Your task to perform on an android device: check storage Image 0: 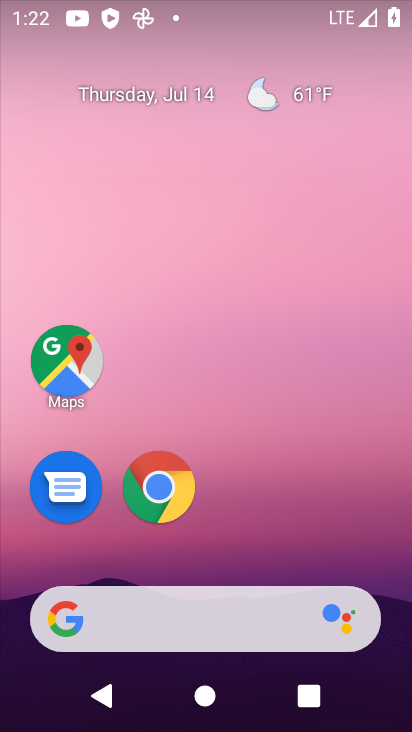
Step 0: drag from (359, 545) to (384, 144)
Your task to perform on an android device: check storage Image 1: 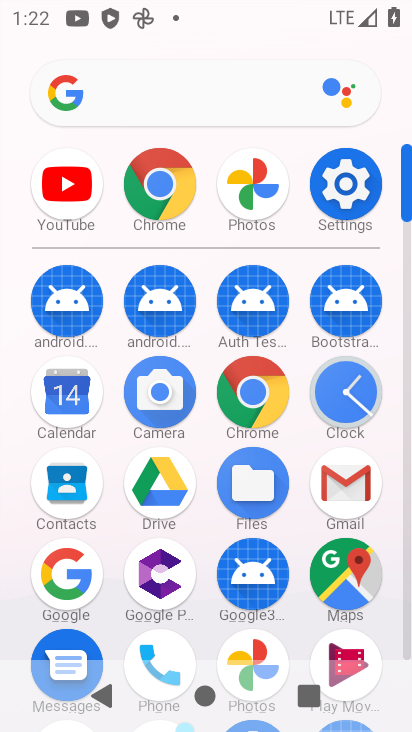
Step 1: click (345, 197)
Your task to perform on an android device: check storage Image 2: 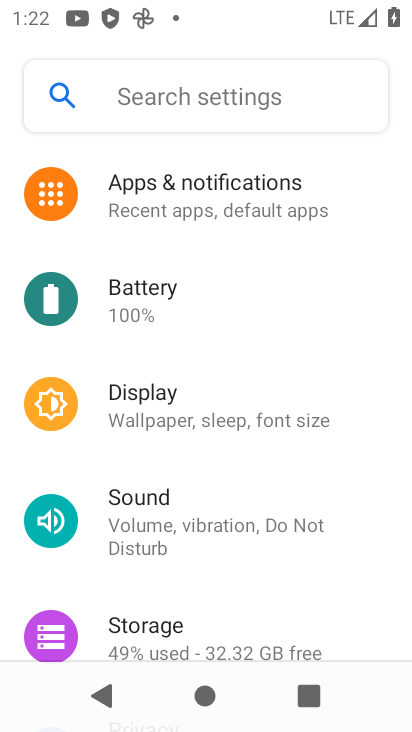
Step 2: drag from (370, 276) to (368, 426)
Your task to perform on an android device: check storage Image 3: 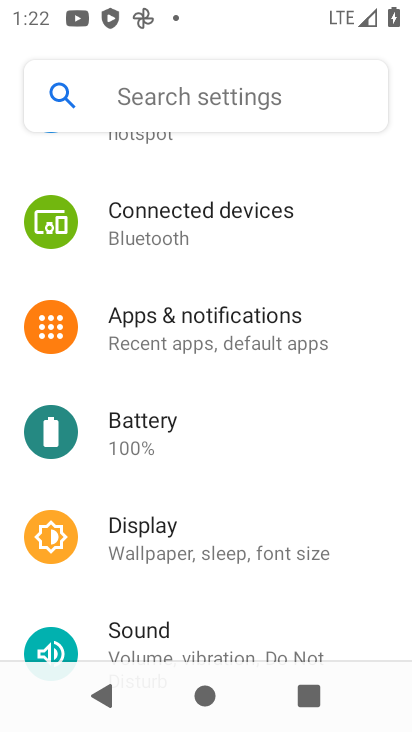
Step 3: drag from (355, 302) to (353, 412)
Your task to perform on an android device: check storage Image 4: 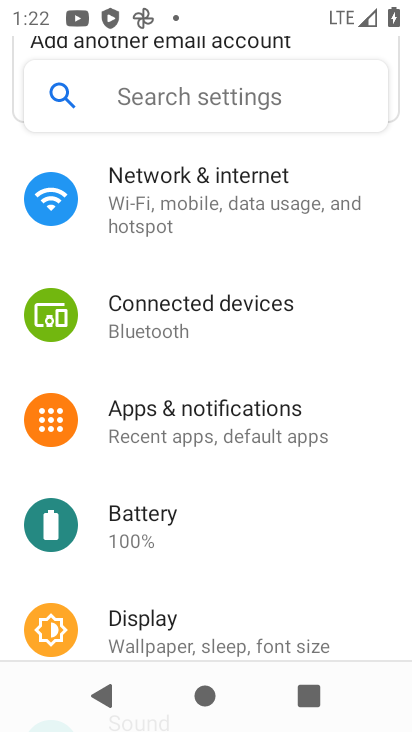
Step 4: drag from (365, 300) to (358, 432)
Your task to perform on an android device: check storage Image 5: 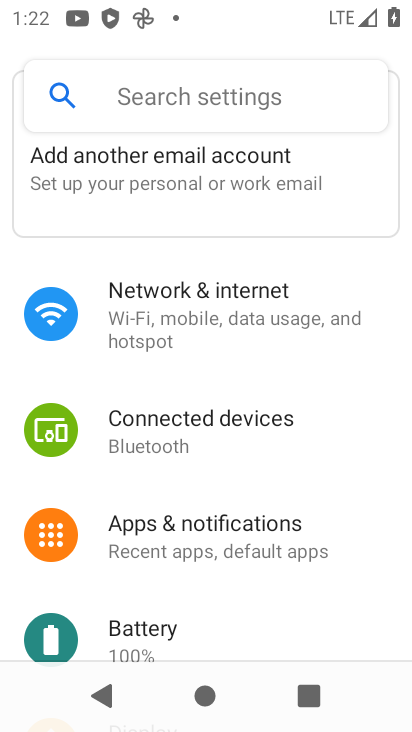
Step 5: drag from (359, 264) to (356, 488)
Your task to perform on an android device: check storage Image 6: 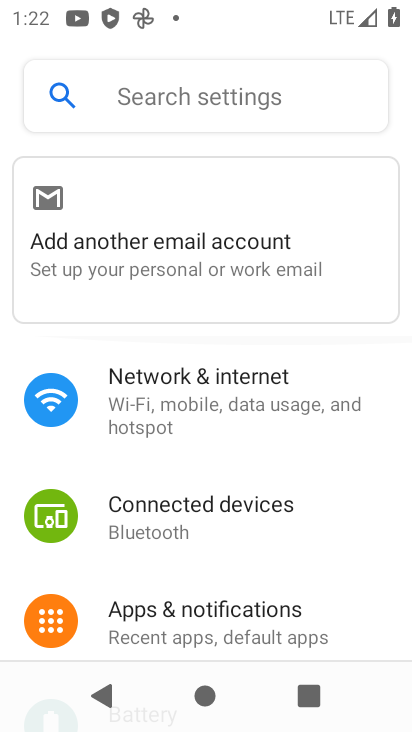
Step 6: drag from (365, 529) to (369, 418)
Your task to perform on an android device: check storage Image 7: 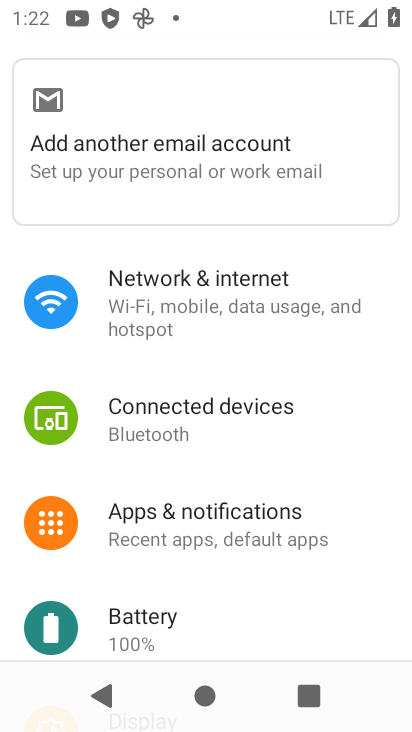
Step 7: drag from (352, 468) to (359, 411)
Your task to perform on an android device: check storage Image 8: 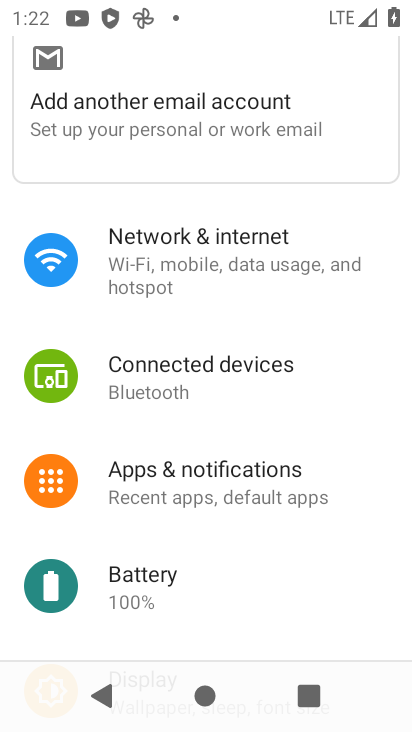
Step 8: drag from (359, 546) to (361, 412)
Your task to perform on an android device: check storage Image 9: 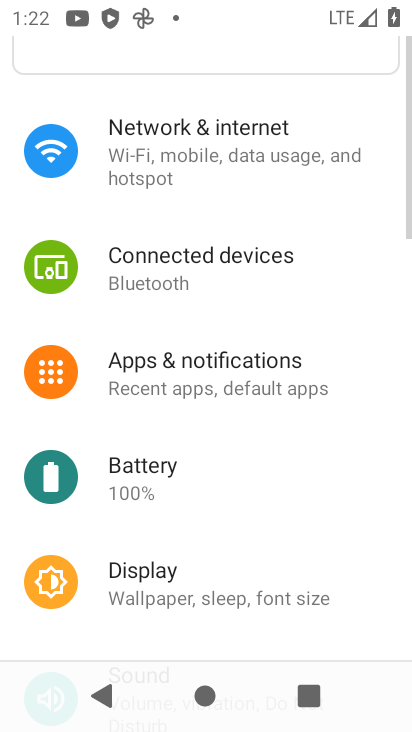
Step 9: drag from (361, 542) to (361, 411)
Your task to perform on an android device: check storage Image 10: 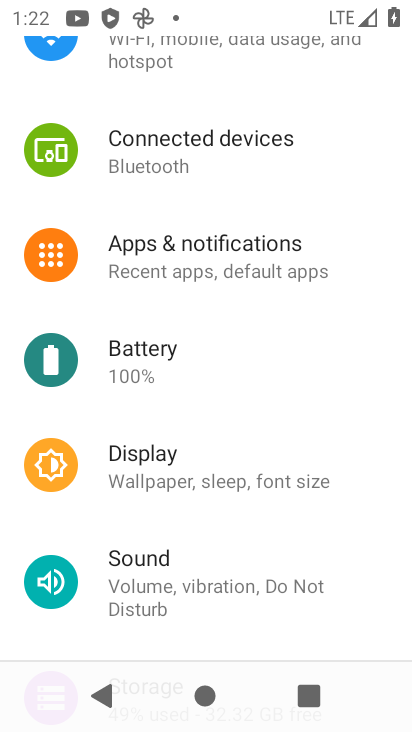
Step 10: drag from (357, 543) to (360, 407)
Your task to perform on an android device: check storage Image 11: 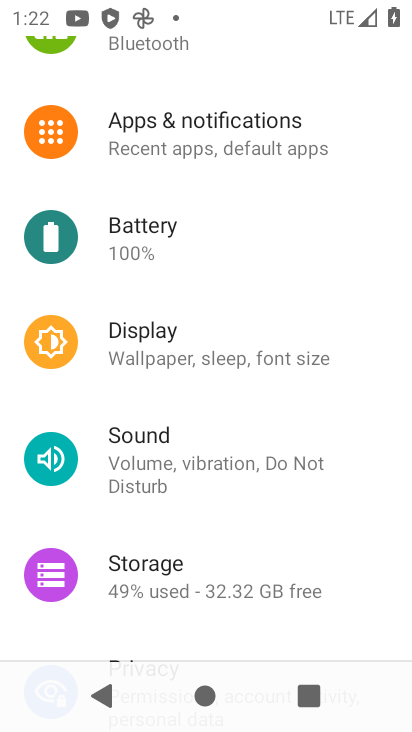
Step 11: drag from (354, 554) to (354, 434)
Your task to perform on an android device: check storage Image 12: 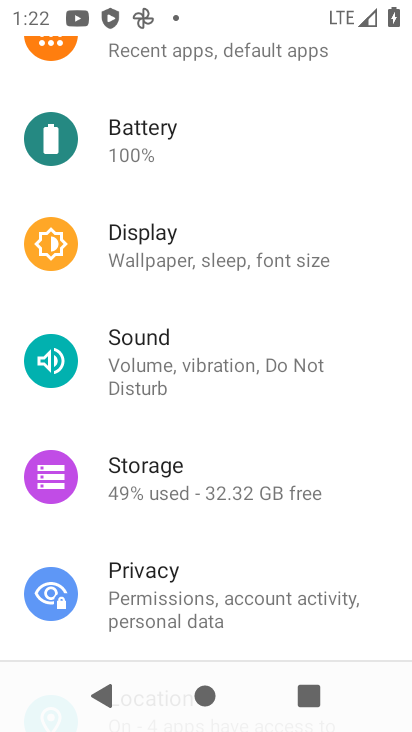
Step 12: drag from (354, 557) to (359, 428)
Your task to perform on an android device: check storage Image 13: 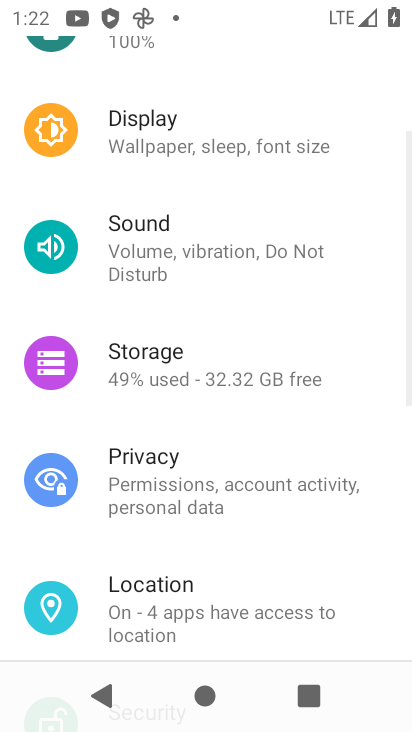
Step 13: drag from (361, 548) to (367, 429)
Your task to perform on an android device: check storage Image 14: 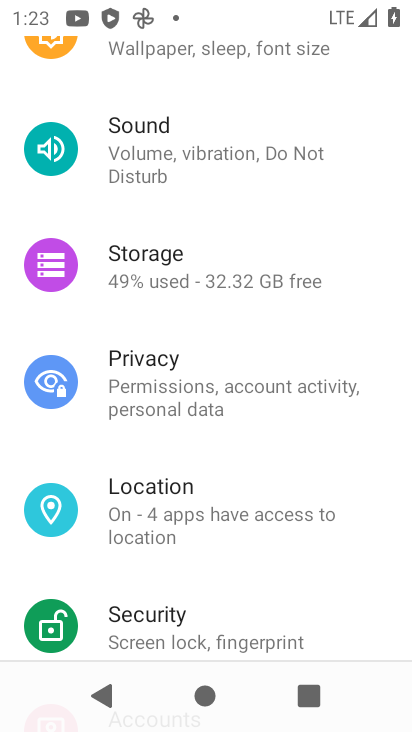
Step 14: drag from (367, 538) to (367, 458)
Your task to perform on an android device: check storage Image 15: 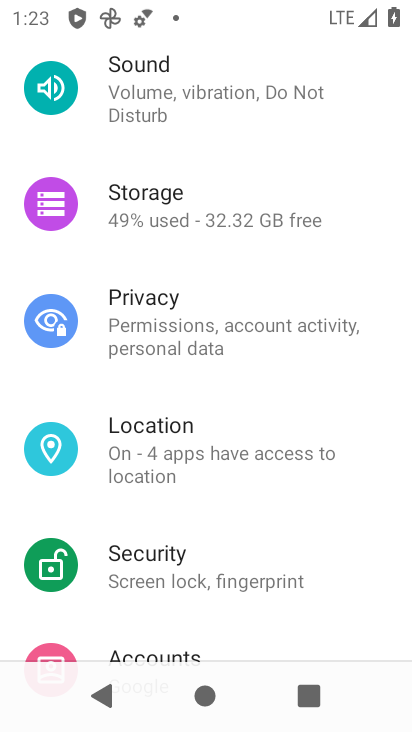
Step 15: click (277, 224)
Your task to perform on an android device: check storage Image 16: 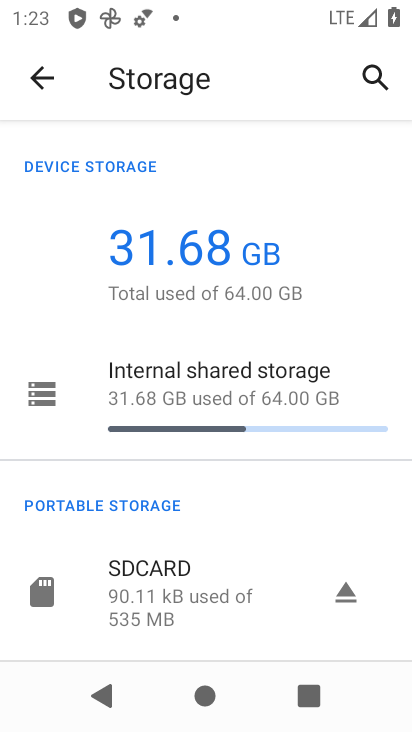
Step 16: task complete